Your task to perform on an android device: Open Wikipedia Image 0: 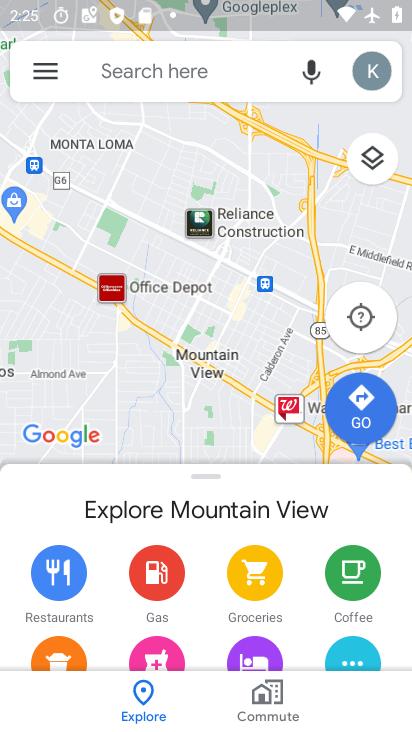
Step 0: press home button
Your task to perform on an android device: Open Wikipedia Image 1: 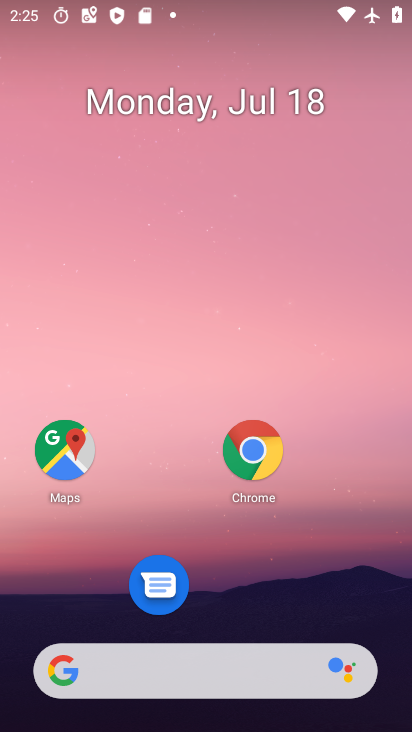
Step 1: click (255, 455)
Your task to perform on an android device: Open Wikipedia Image 2: 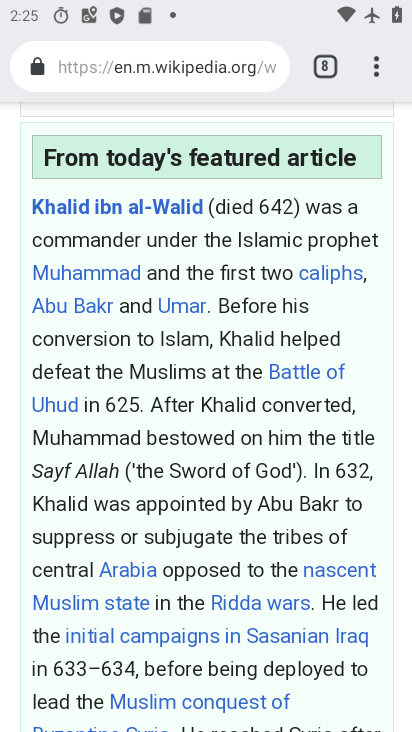
Step 2: task complete